Your task to perform on an android device: open device folders in google photos Image 0: 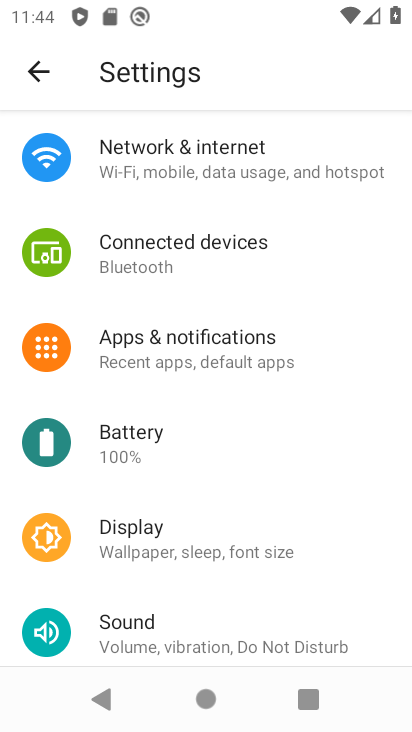
Step 0: press home button
Your task to perform on an android device: open device folders in google photos Image 1: 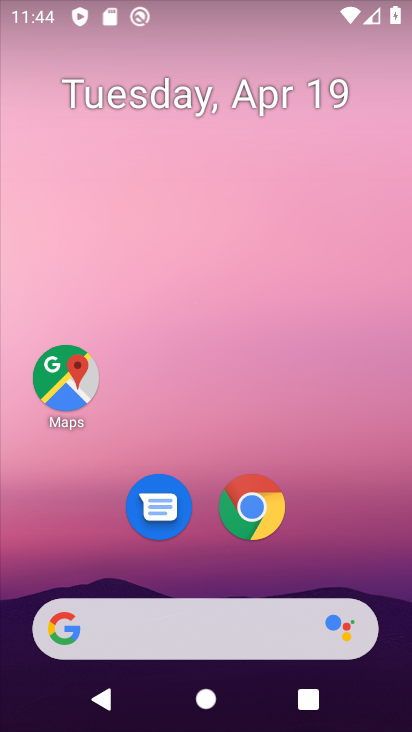
Step 1: drag from (386, 534) to (366, 153)
Your task to perform on an android device: open device folders in google photos Image 2: 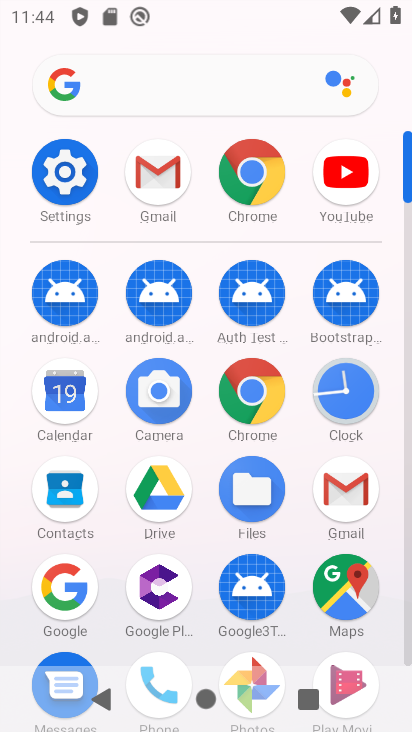
Step 2: drag from (309, 626) to (290, 398)
Your task to perform on an android device: open device folders in google photos Image 3: 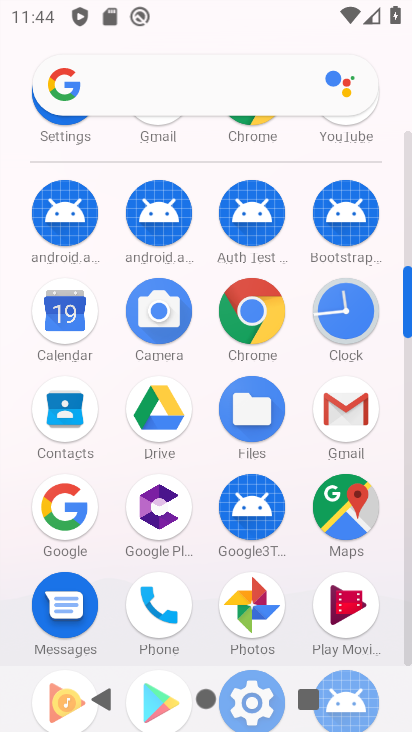
Step 3: click (238, 608)
Your task to perform on an android device: open device folders in google photos Image 4: 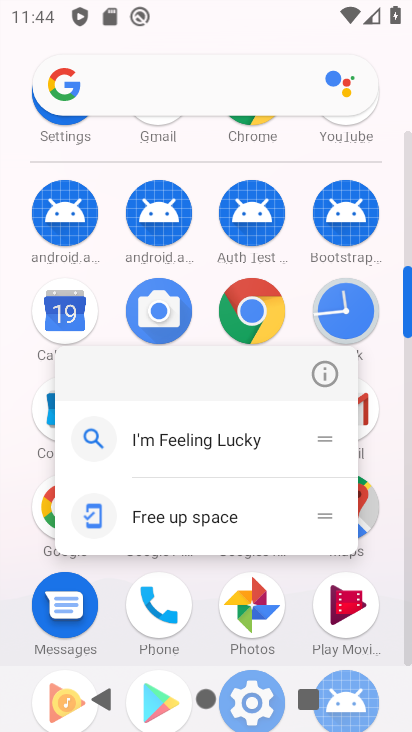
Step 4: click (242, 608)
Your task to perform on an android device: open device folders in google photos Image 5: 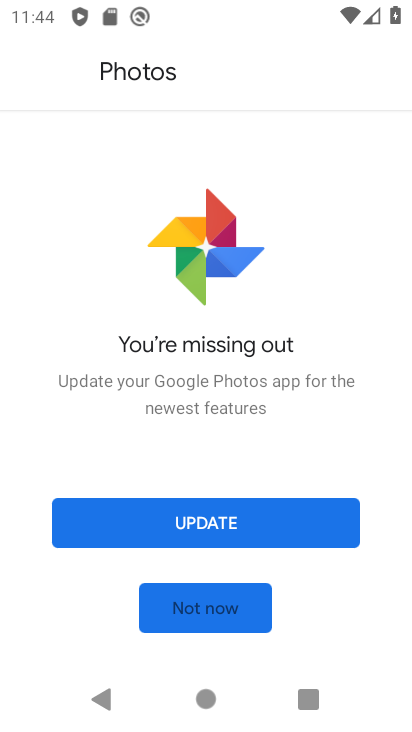
Step 5: click (244, 528)
Your task to perform on an android device: open device folders in google photos Image 6: 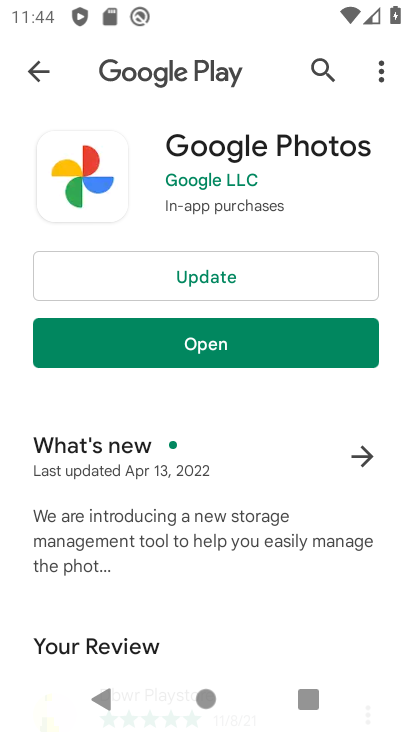
Step 6: click (135, 290)
Your task to perform on an android device: open device folders in google photos Image 7: 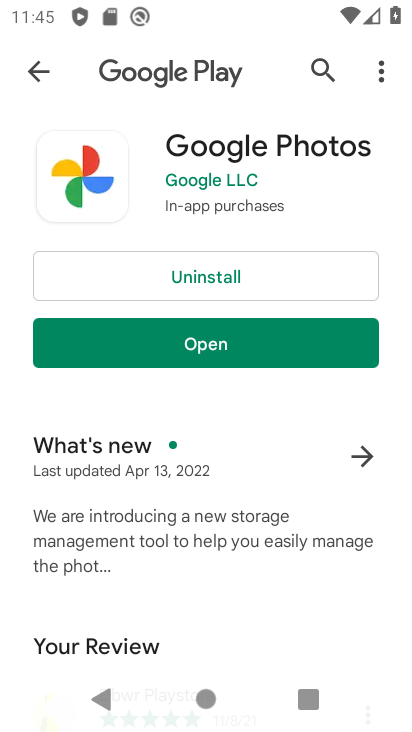
Step 7: click (224, 344)
Your task to perform on an android device: open device folders in google photos Image 8: 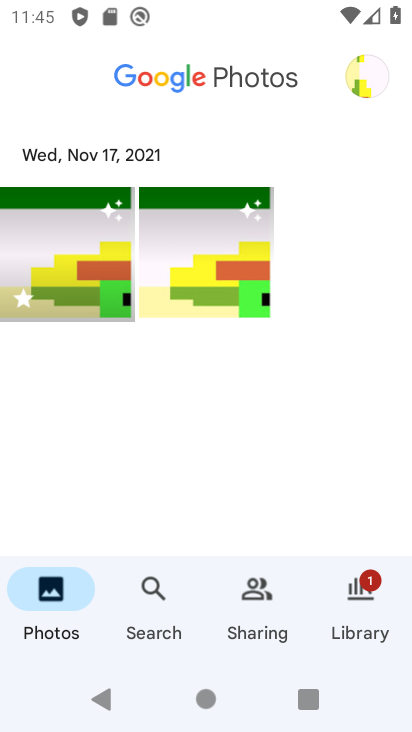
Step 8: click (152, 583)
Your task to perform on an android device: open device folders in google photos Image 9: 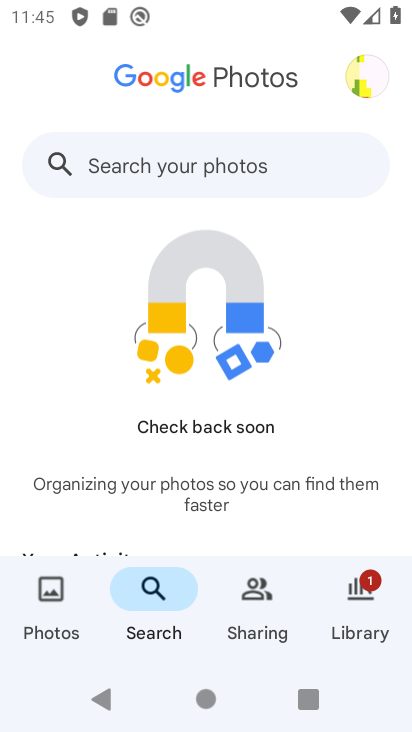
Step 9: click (174, 176)
Your task to perform on an android device: open device folders in google photos Image 10: 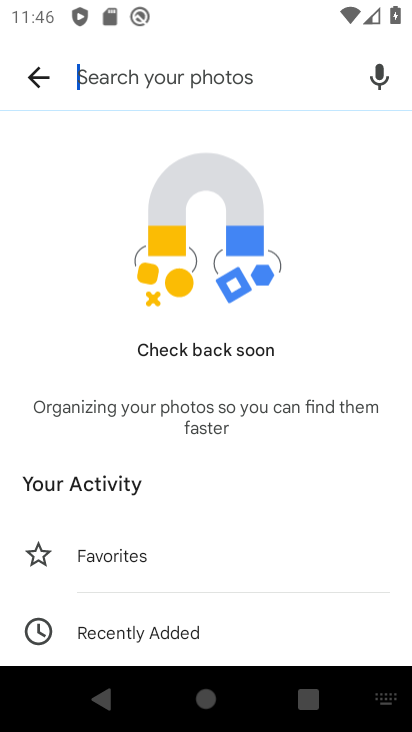
Step 10: type "device folders"
Your task to perform on an android device: open device folders in google photos Image 11: 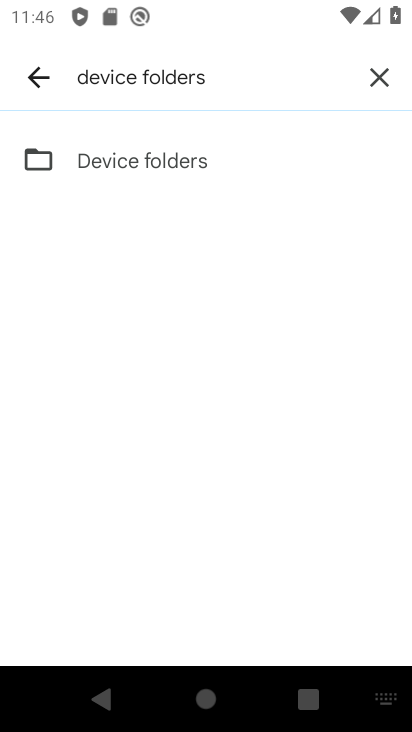
Step 11: click (158, 168)
Your task to perform on an android device: open device folders in google photos Image 12: 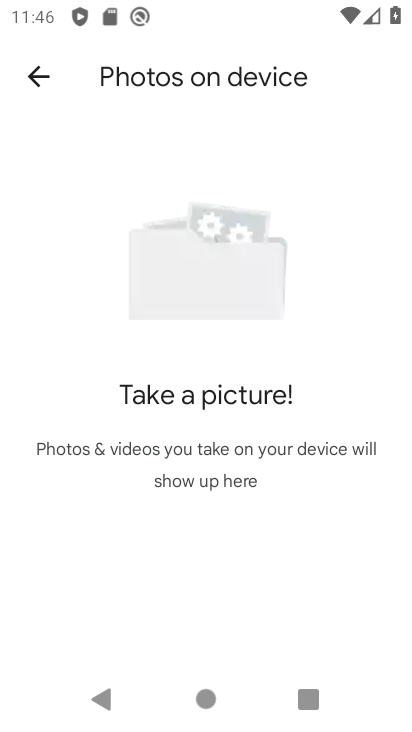
Step 12: task complete